Your task to perform on an android device: open chrome privacy settings Image 0: 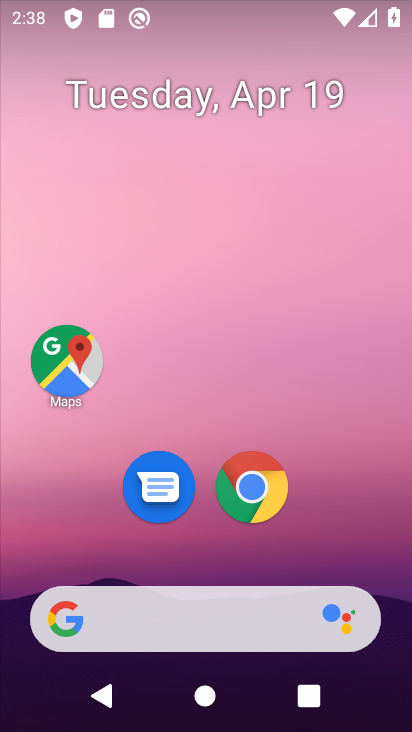
Step 0: click (259, 487)
Your task to perform on an android device: open chrome privacy settings Image 1: 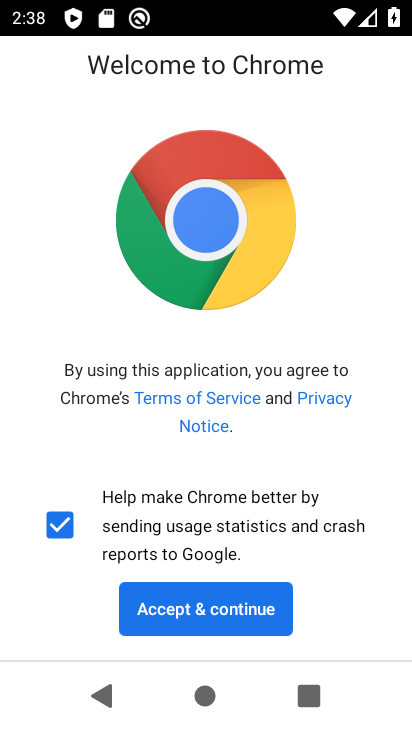
Step 1: click (199, 621)
Your task to perform on an android device: open chrome privacy settings Image 2: 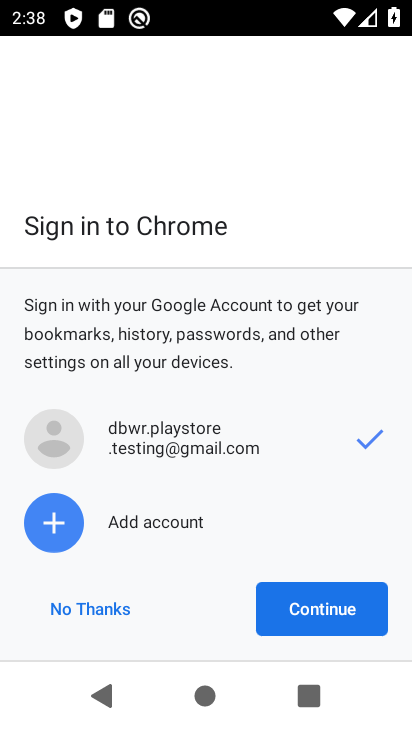
Step 2: click (347, 616)
Your task to perform on an android device: open chrome privacy settings Image 3: 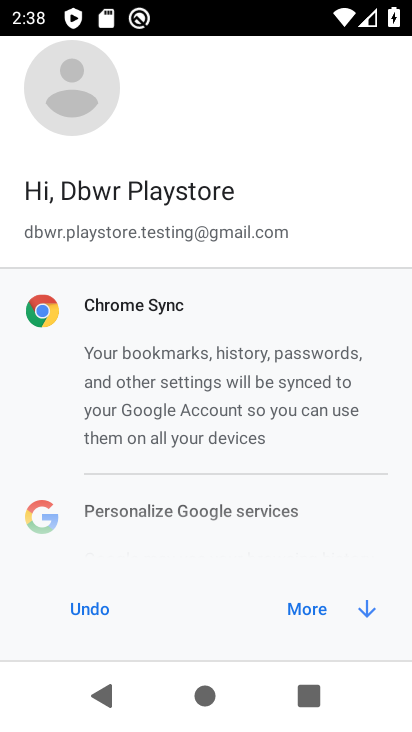
Step 3: click (338, 608)
Your task to perform on an android device: open chrome privacy settings Image 4: 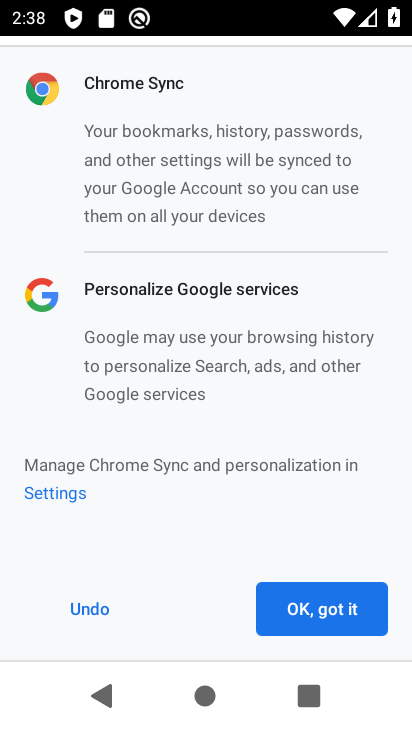
Step 4: click (339, 604)
Your task to perform on an android device: open chrome privacy settings Image 5: 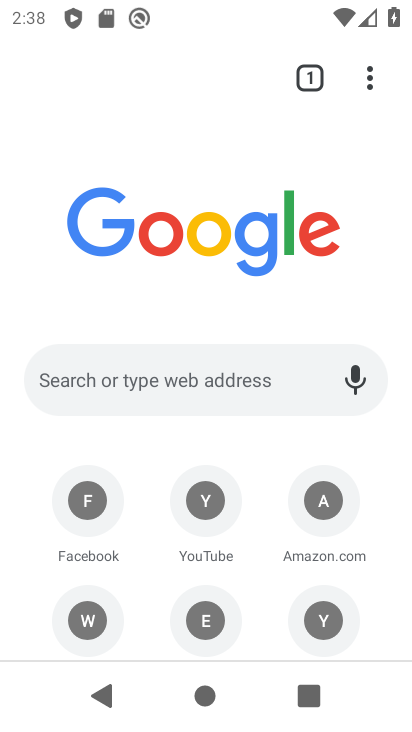
Step 5: click (369, 66)
Your task to perform on an android device: open chrome privacy settings Image 6: 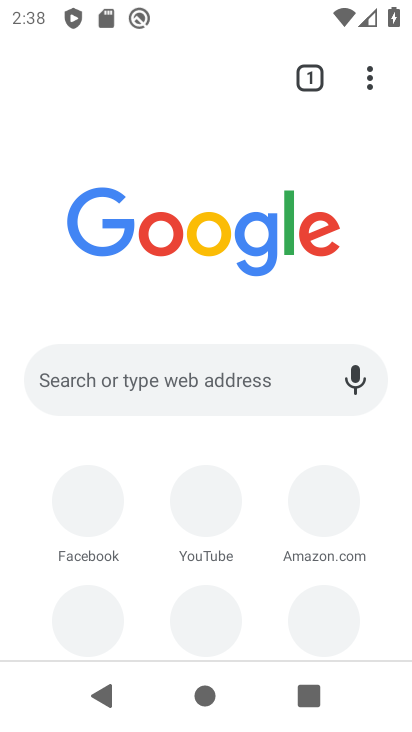
Step 6: click (372, 69)
Your task to perform on an android device: open chrome privacy settings Image 7: 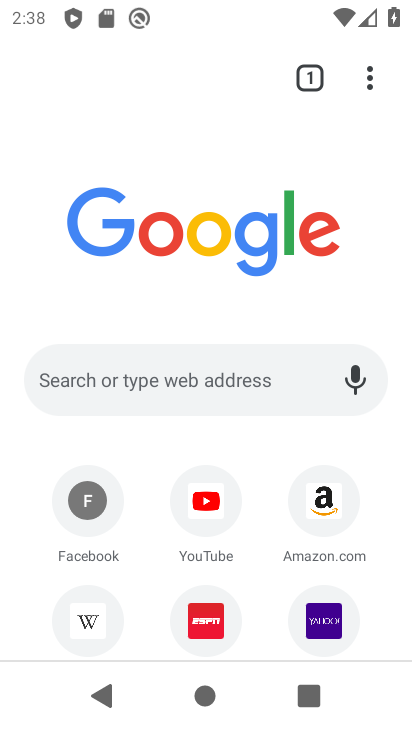
Step 7: click (368, 79)
Your task to perform on an android device: open chrome privacy settings Image 8: 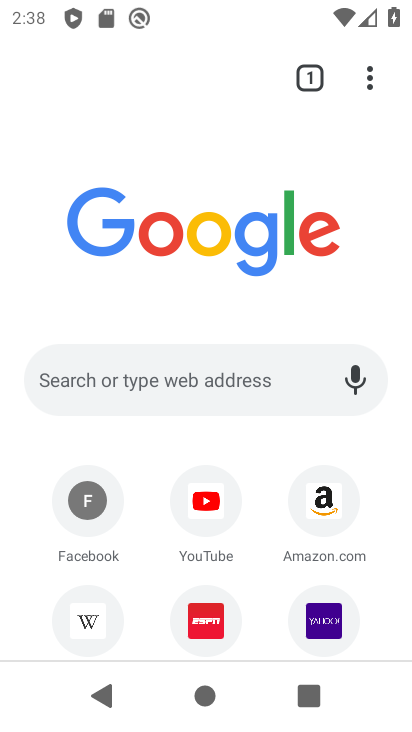
Step 8: drag from (368, 84) to (97, 535)
Your task to perform on an android device: open chrome privacy settings Image 9: 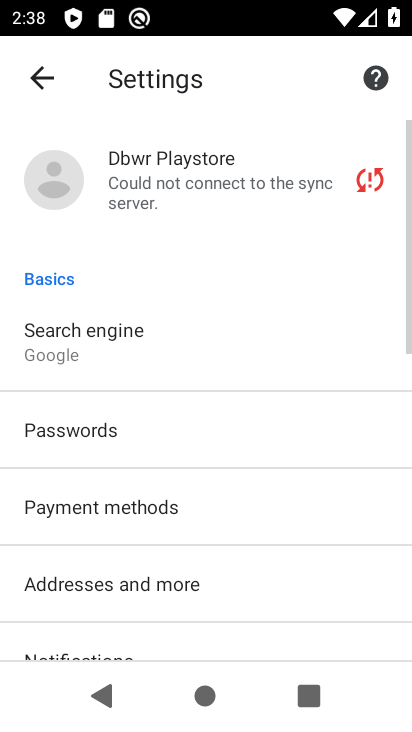
Step 9: drag from (126, 539) to (252, 6)
Your task to perform on an android device: open chrome privacy settings Image 10: 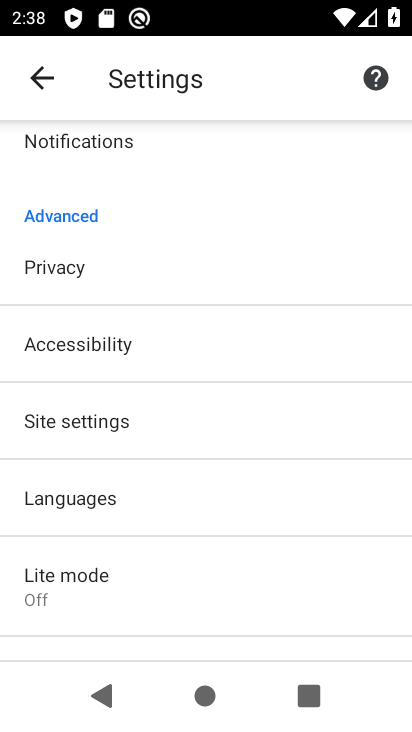
Step 10: click (101, 542)
Your task to perform on an android device: open chrome privacy settings Image 11: 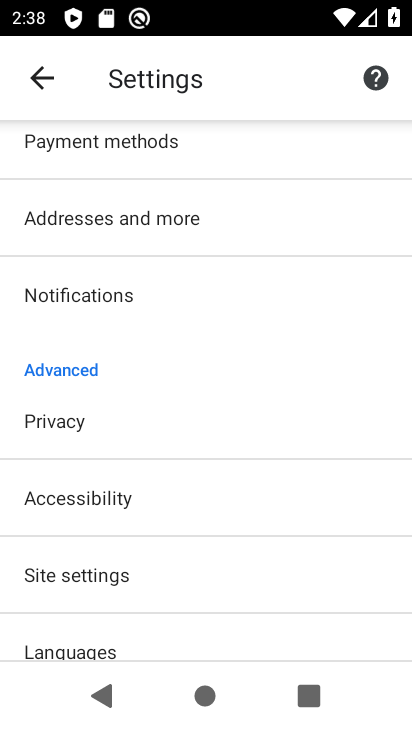
Step 11: click (51, 431)
Your task to perform on an android device: open chrome privacy settings Image 12: 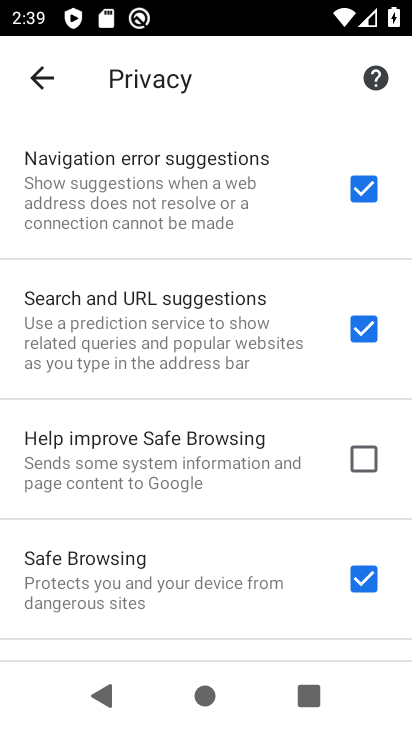
Step 12: task complete